Your task to perform on an android device: toggle notification dots Image 0: 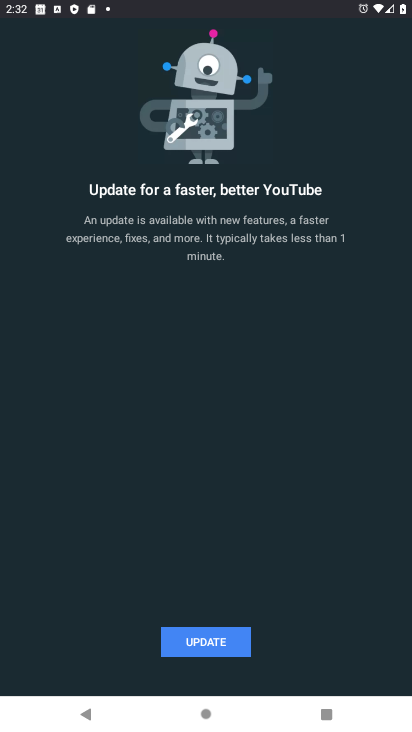
Step 0: press back button
Your task to perform on an android device: toggle notification dots Image 1: 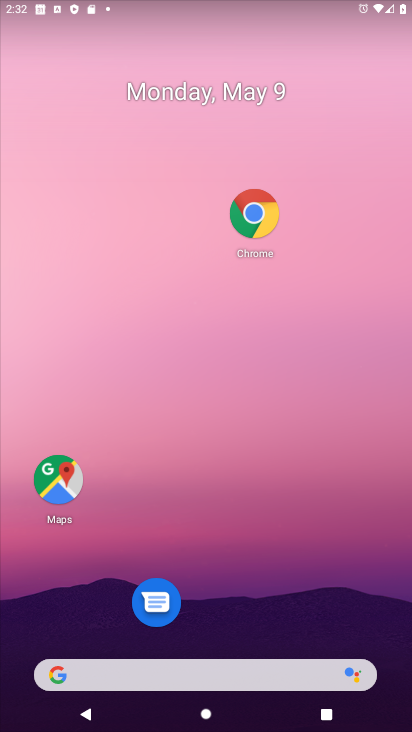
Step 1: drag from (298, 625) to (274, 291)
Your task to perform on an android device: toggle notification dots Image 2: 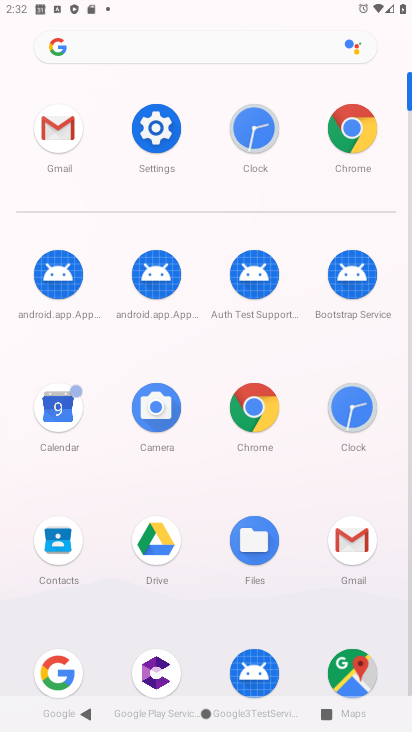
Step 2: click (160, 171)
Your task to perform on an android device: toggle notification dots Image 3: 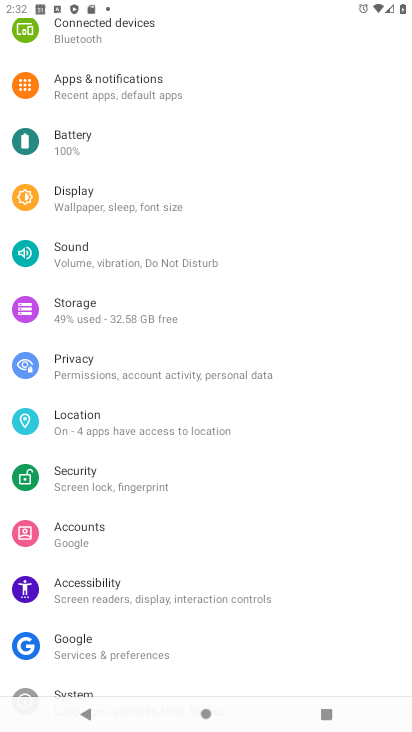
Step 3: click (186, 110)
Your task to perform on an android device: toggle notification dots Image 4: 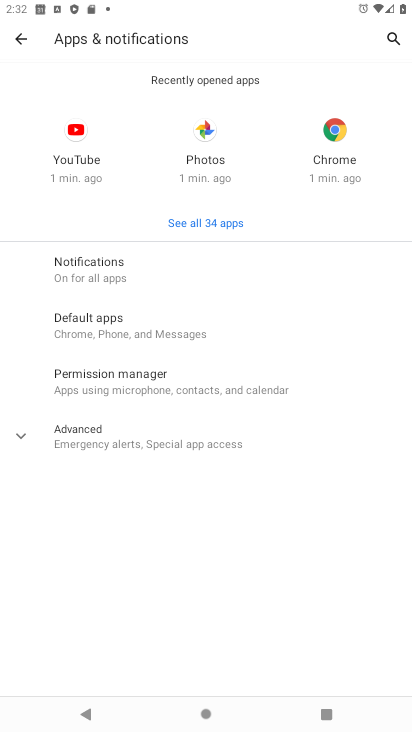
Step 4: click (184, 278)
Your task to perform on an android device: toggle notification dots Image 5: 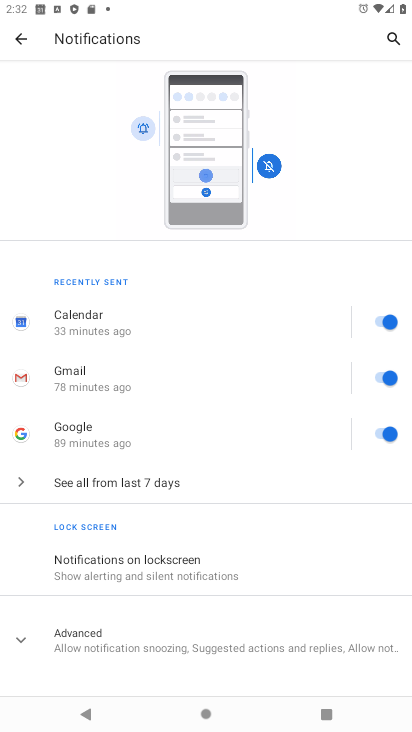
Step 5: click (170, 631)
Your task to perform on an android device: toggle notification dots Image 6: 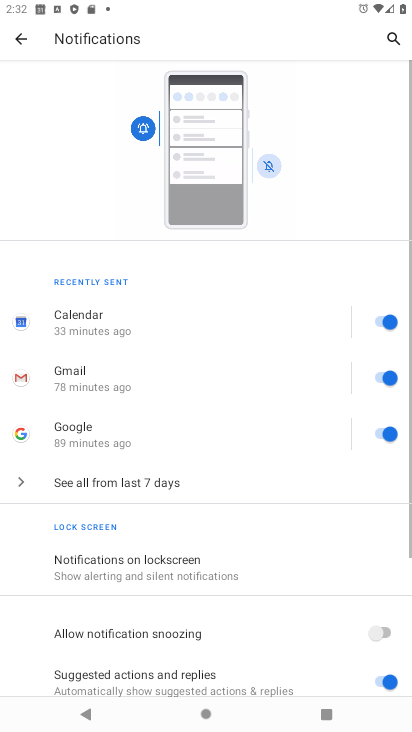
Step 6: drag from (170, 631) to (169, 596)
Your task to perform on an android device: toggle notification dots Image 7: 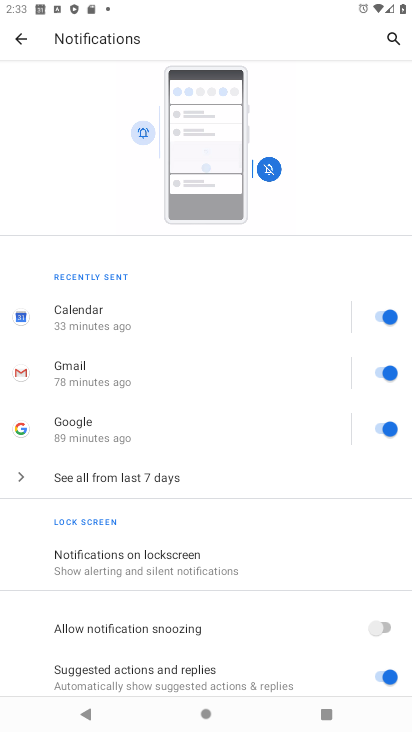
Step 7: drag from (257, 685) to (245, 482)
Your task to perform on an android device: toggle notification dots Image 8: 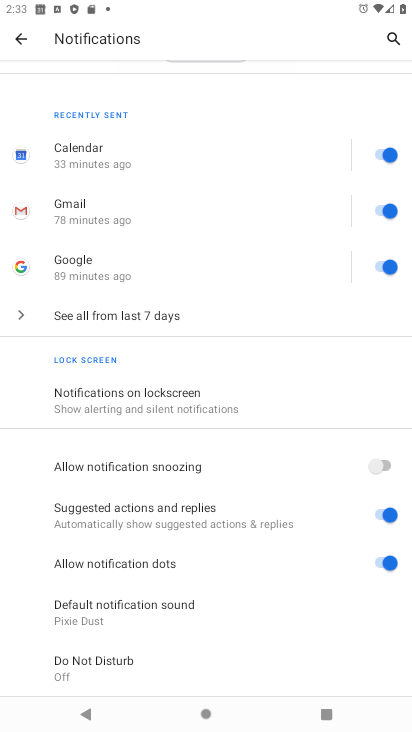
Step 8: click (386, 564)
Your task to perform on an android device: toggle notification dots Image 9: 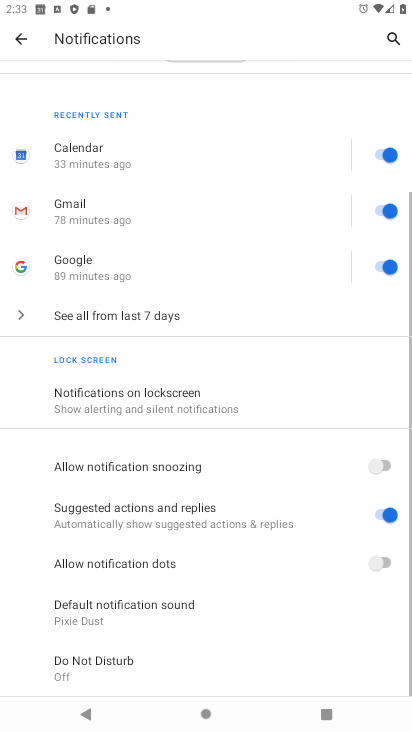
Step 9: task complete